Your task to perform on an android device: Open eBay Image 0: 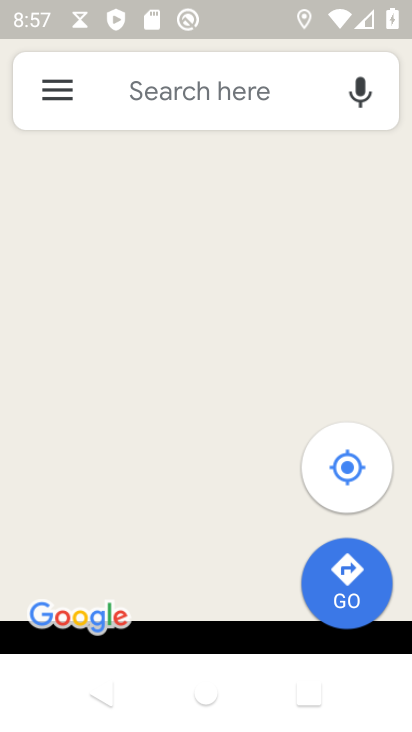
Step 0: click (192, 242)
Your task to perform on an android device: Open eBay Image 1: 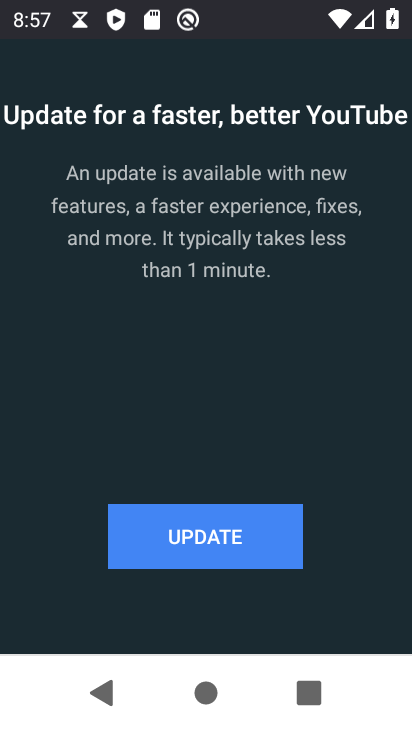
Step 1: press home button
Your task to perform on an android device: Open eBay Image 2: 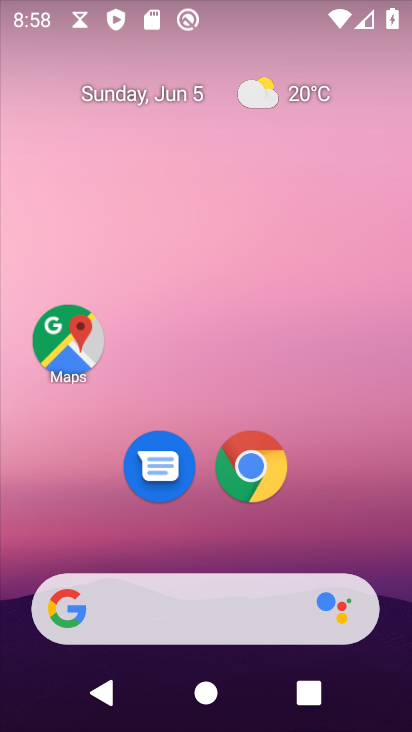
Step 2: click (249, 465)
Your task to perform on an android device: Open eBay Image 3: 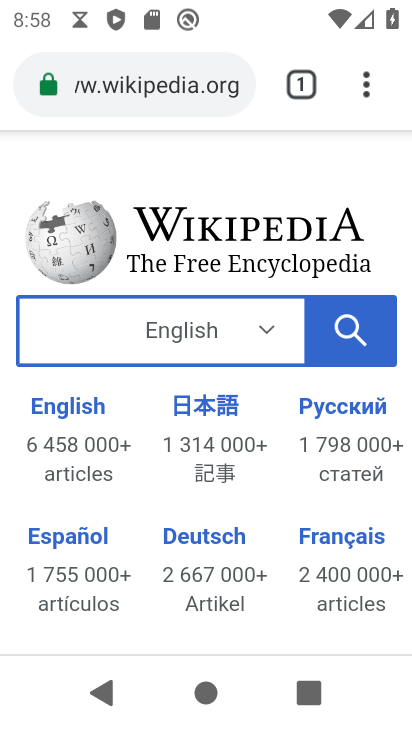
Step 3: task complete